Your task to perform on an android device: Go to accessibility settings Image 0: 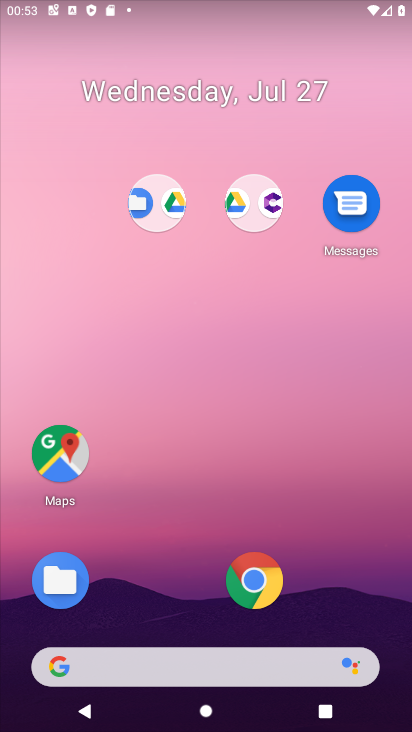
Step 0: drag from (384, 385) to (410, 26)
Your task to perform on an android device: Go to accessibility settings Image 1: 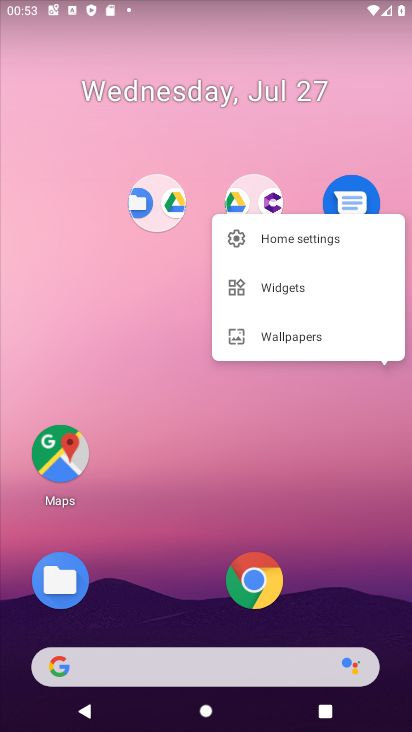
Step 1: drag from (137, 631) to (124, 136)
Your task to perform on an android device: Go to accessibility settings Image 2: 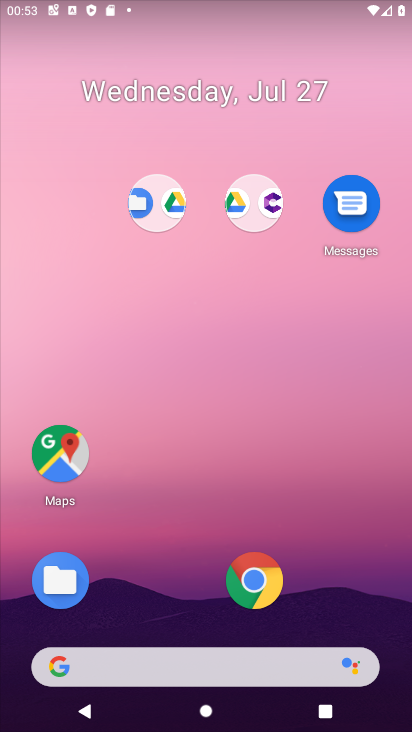
Step 2: drag from (153, 616) to (194, 146)
Your task to perform on an android device: Go to accessibility settings Image 3: 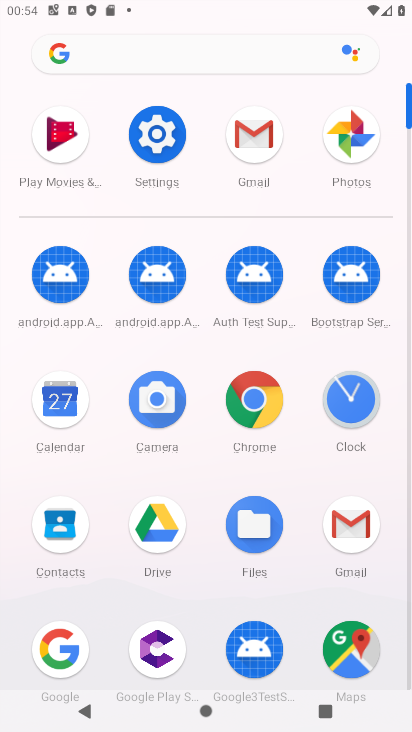
Step 3: click (166, 137)
Your task to perform on an android device: Go to accessibility settings Image 4: 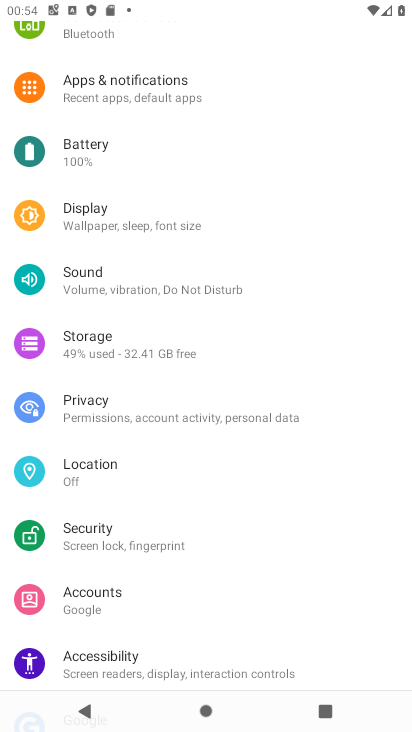
Step 4: click (105, 668)
Your task to perform on an android device: Go to accessibility settings Image 5: 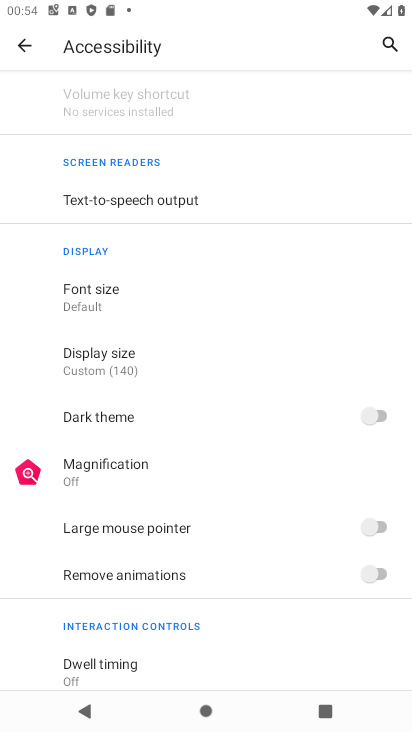
Step 5: task complete